Your task to perform on an android device: Go to Wikipedia Image 0: 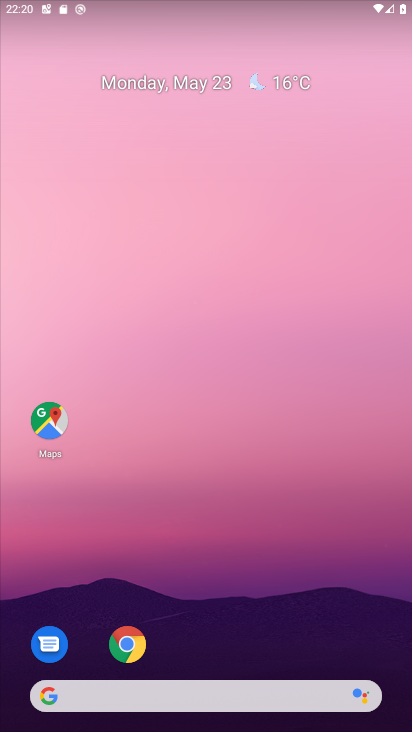
Step 0: click (123, 637)
Your task to perform on an android device: Go to Wikipedia Image 1: 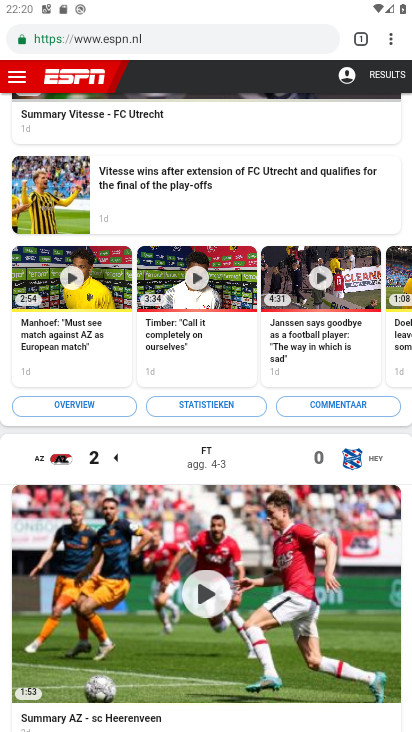
Step 1: click (355, 32)
Your task to perform on an android device: Go to Wikipedia Image 2: 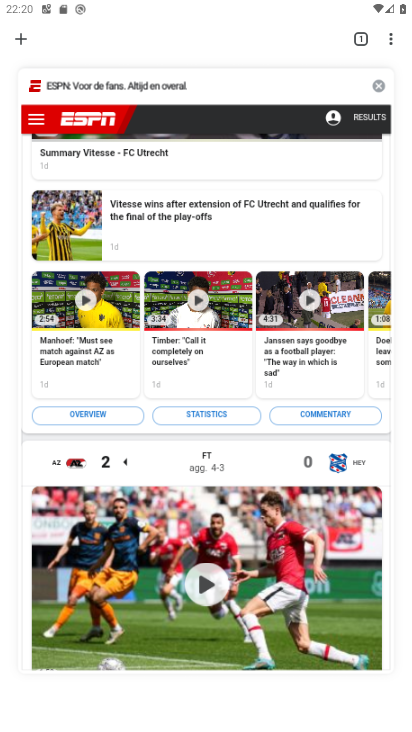
Step 2: click (378, 84)
Your task to perform on an android device: Go to Wikipedia Image 3: 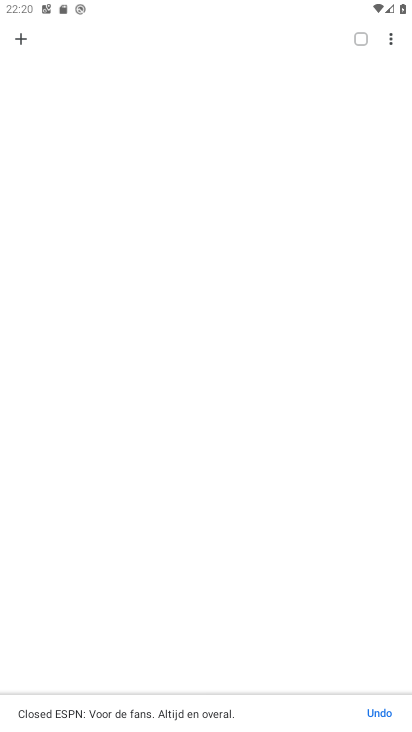
Step 3: click (20, 36)
Your task to perform on an android device: Go to Wikipedia Image 4: 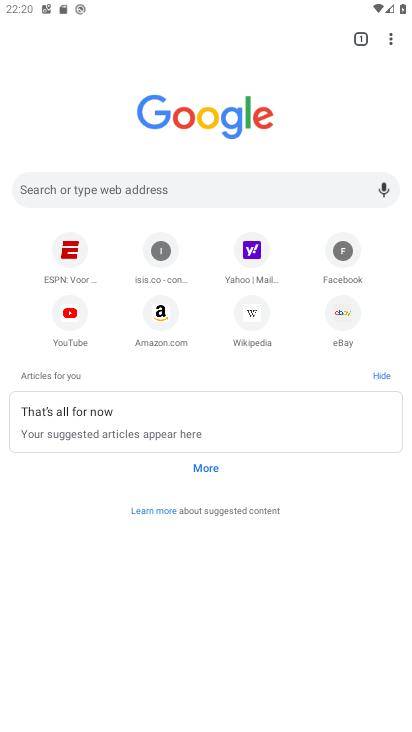
Step 4: click (249, 306)
Your task to perform on an android device: Go to Wikipedia Image 5: 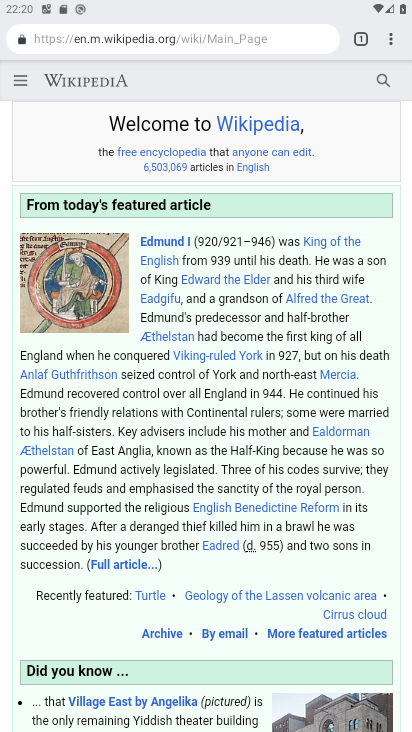
Step 5: task complete